Your task to perform on an android device: change the upload size in google photos Image 0: 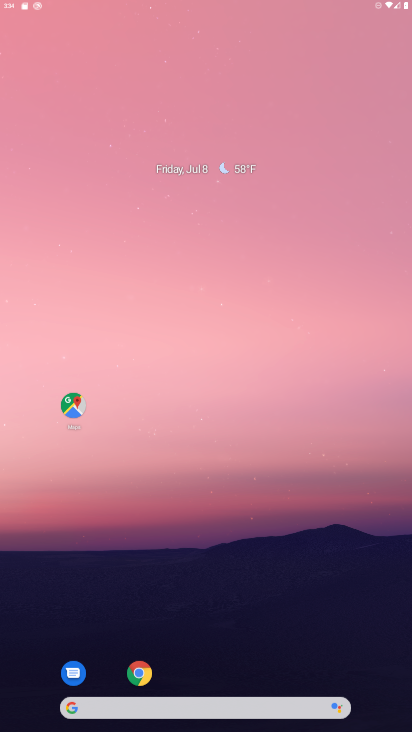
Step 0: click (244, 101)
Your task to perform on an android device: change the upload size in google photos Image 1: 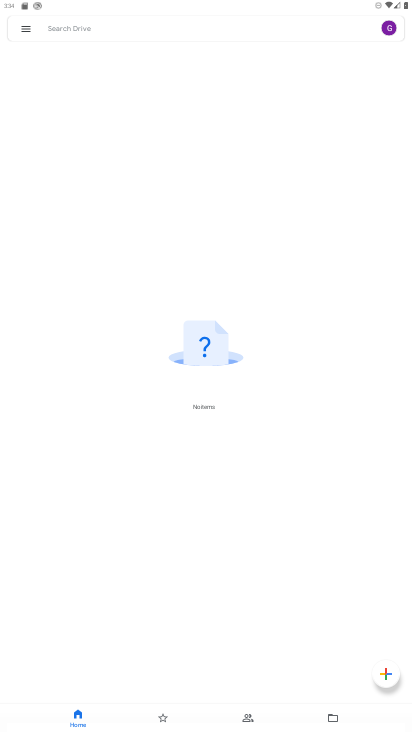
Step 1: press home button
Your task to perform on an android device: change the upload size in google photos Image 2: 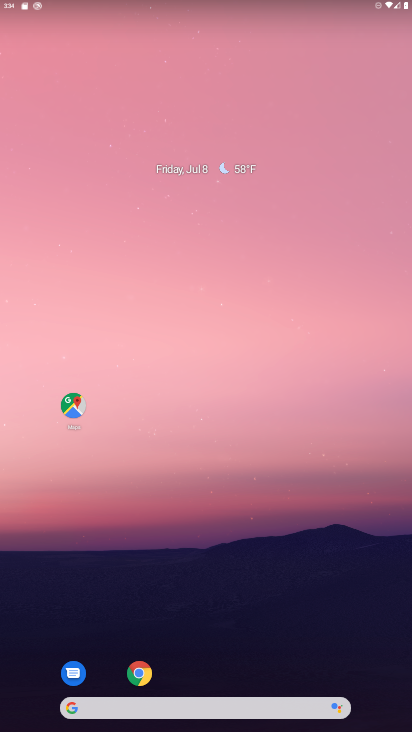
Step 2: drag from (197, 657) to (197, 334)
Your task to perform on an android device: change the upload size in google photos Image 3: 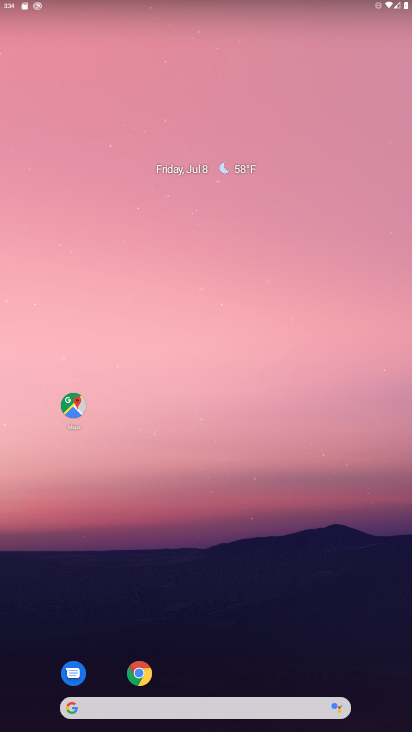
Step 3: drag from (159, 681) to (229, 255)
Your task to perform on an android device: change the upload size in google photos Image 4: 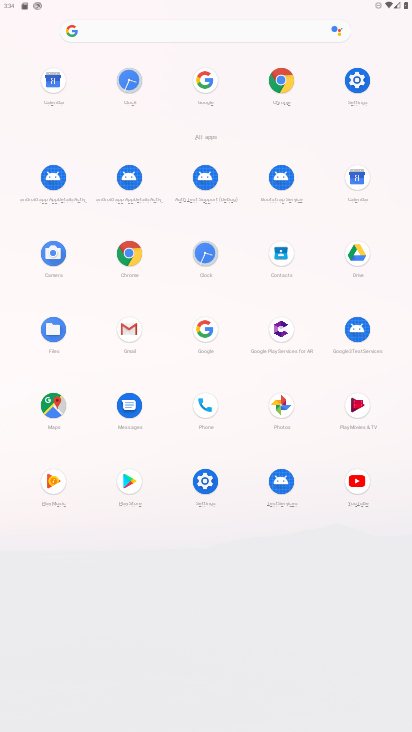
Step 4: click (280, 407)
Your task to perform on an android device: change the upload size in google photos Image 5: 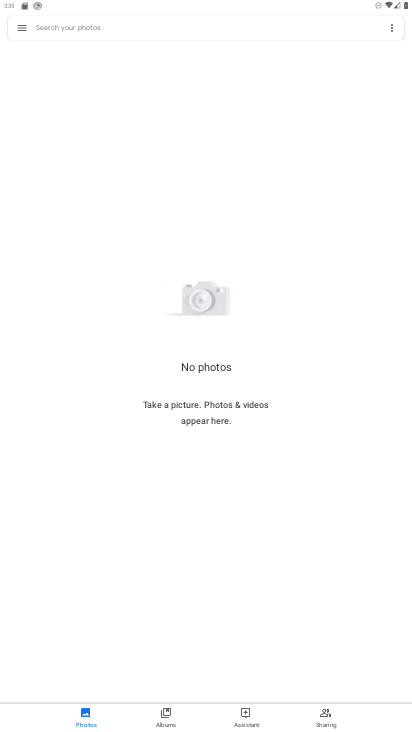
Step 5: click (393, 30)
Your task to perform on an android device: change the upload size in google photos Image 6: 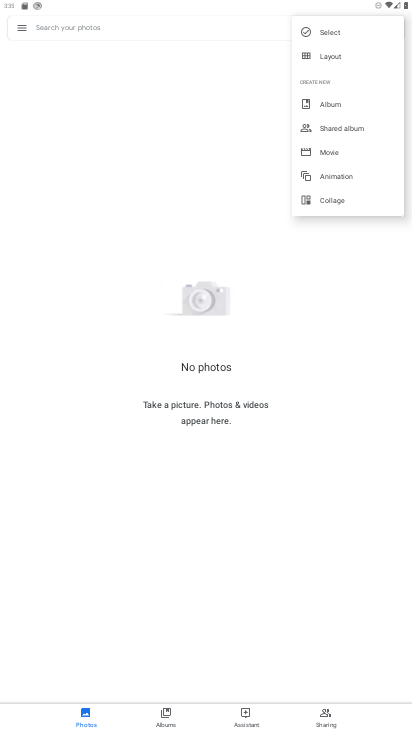
Step 6: click (161, 155)
Your task to perform on an android device: change the upload size in google photos Image 7: 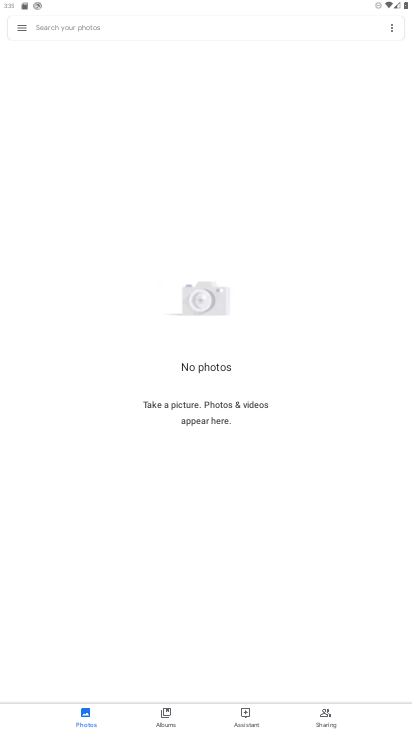
Step 7: click (21, 31)
Your task to perform on an android device: change the upload size in google photos Image 8: 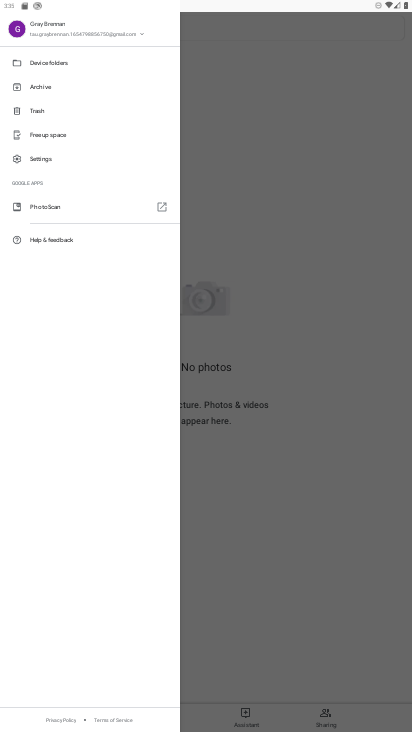
Step 8: click (42, 156)
Your task to perform on an android device: change the upload size in google photos Image 9: 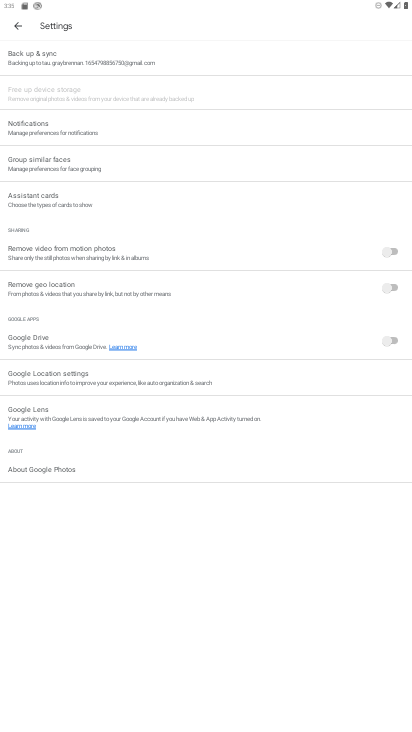
Step 9: click (79, 52)
Your task to perform on an android device: change the upload size in google photos Image 10: 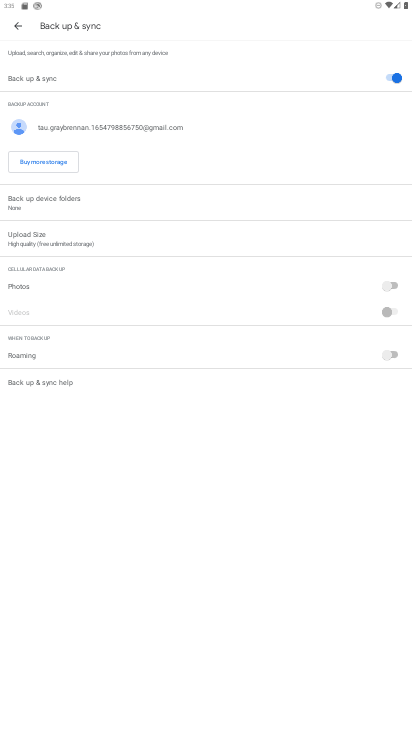
Step 10: click (38, 238)
Your task to perform on an android device: change the upload size in google photos Image 11: 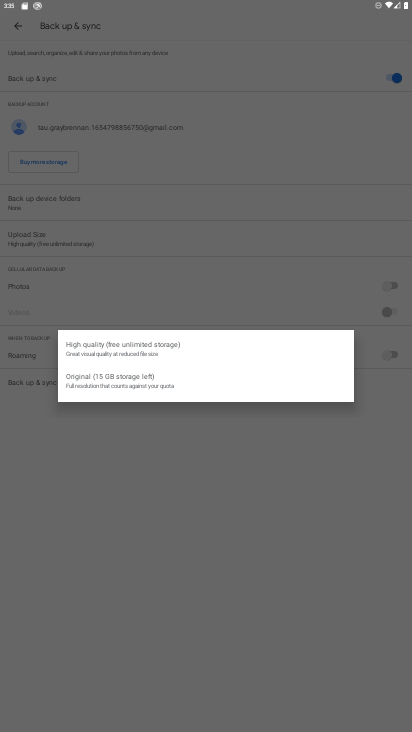
Step 11: click (95, 379)
Your task to perform on an android device: change the upload size in google photos Image 12: 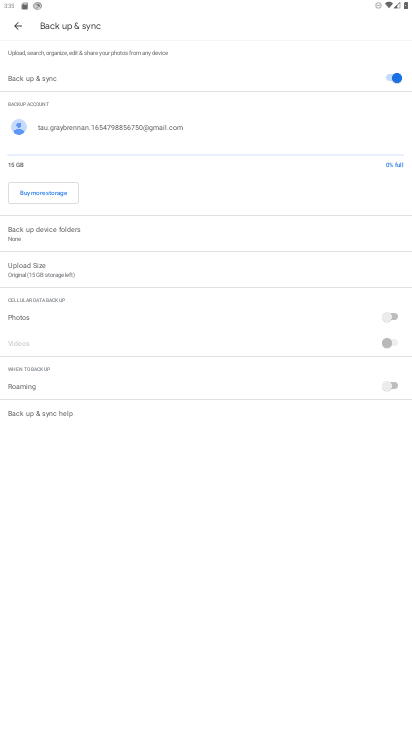
Step 12: task complete